Your task to perform on an android device: Search for vegetarian restaurants on Maps Image 0: 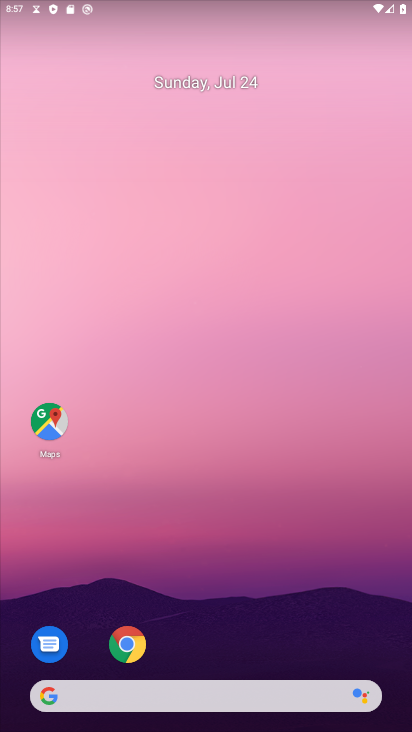
Step 0: drag from (286, 611) to (342, 68)
Your task to perform on an android device: Search for vegetarian restaurants on Maps Image 1: 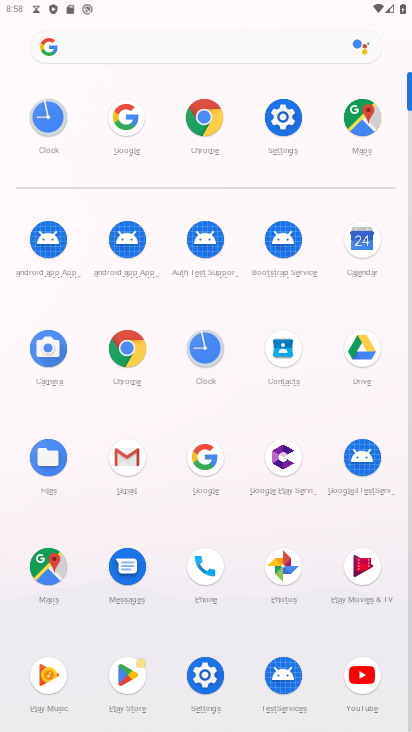
Step 1: click (48, 560)
Your task to perform on an android device: Search for vegetarian restaurants on Maps Image 2: 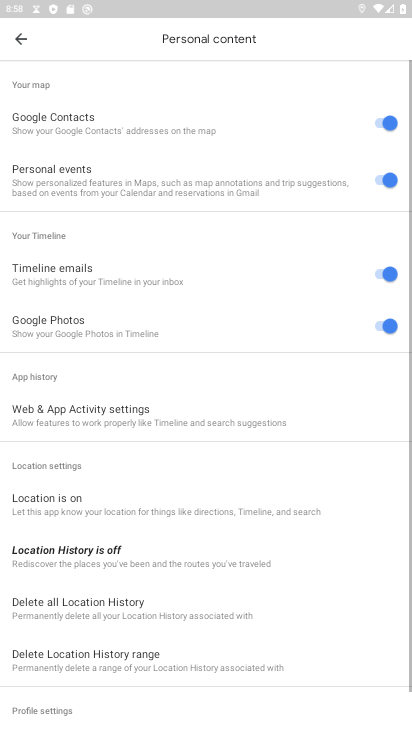
Step 2: click (15, 44)
Your task to perform on an android device: Search for vegetarian restaurants on Maps Image 3: 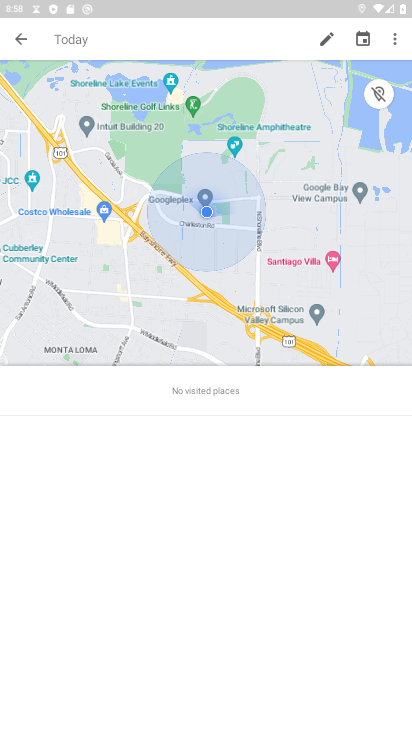
Step 3: click (25, 32)
Your task to perform on an android device: Search for vegetarian restaurants on Maps Image 4: 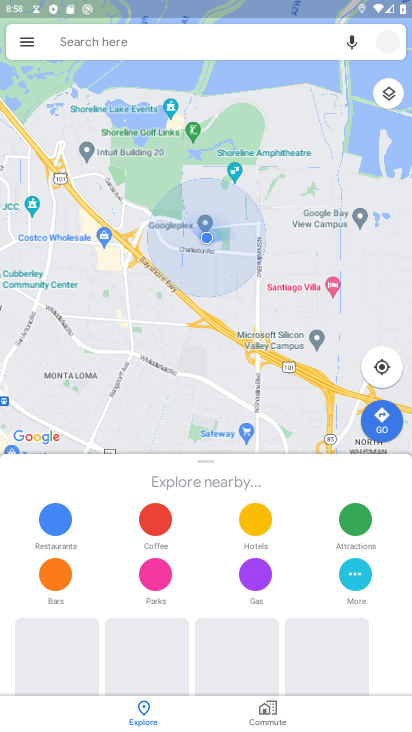
Step 4: click (106, 41)
Your task to perform on an android device: Search for vegetarian restaurants on Maps Image 5: 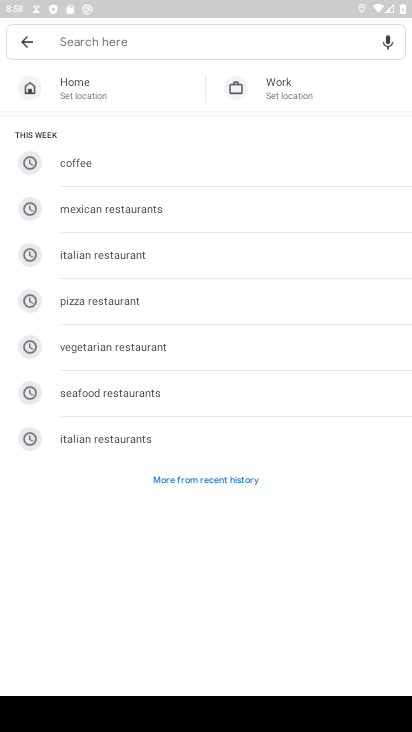
Step 5: type " vegetarian restaurants"
Your task to perform on an android device: Search for vegetarian restaurants on Maps Image 6: 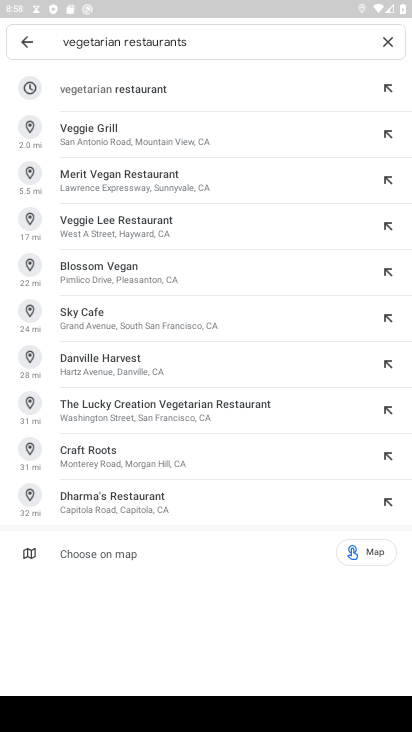
Step 6: click (133, 86)
Your task to perform on an android device: Search for vegetarian restaurants on Maps Image 7: 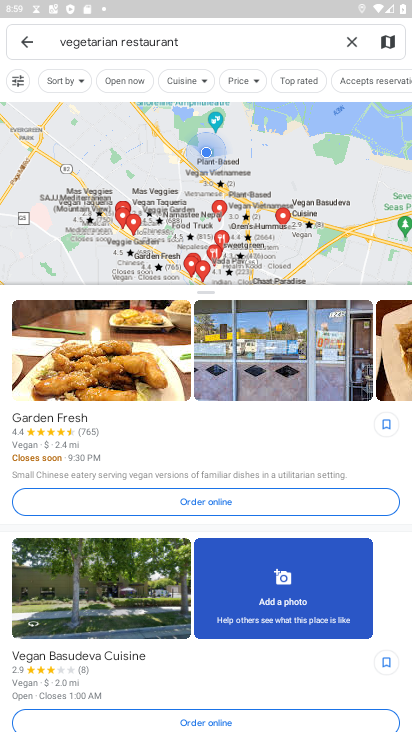
Step 7: task complete